Your task to perform on an android device: Find coffee shops on Maps Image 0: 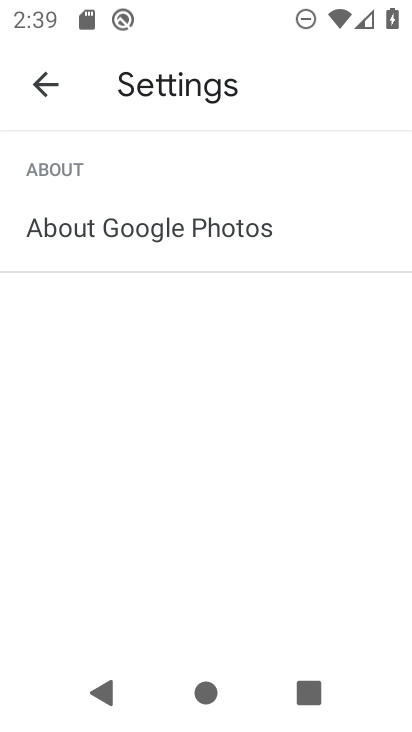
Step 0: press home button
Your task to perform on an android device: Find coffee shops on Maps Image 1: 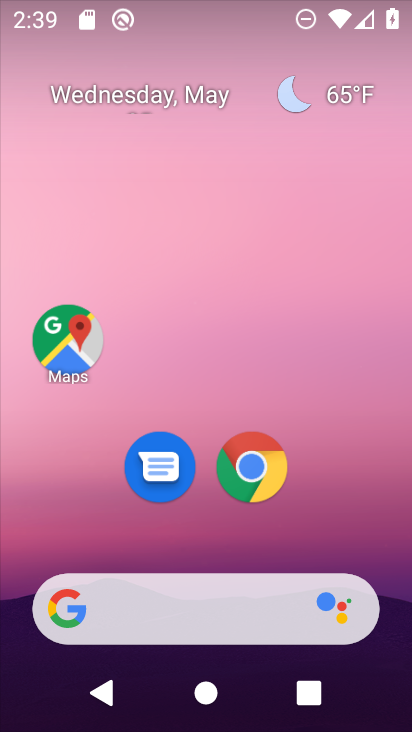
Step 1: click (60, 331)
Your task to perform on an android device: Find coffee shops on Maps Image 2: 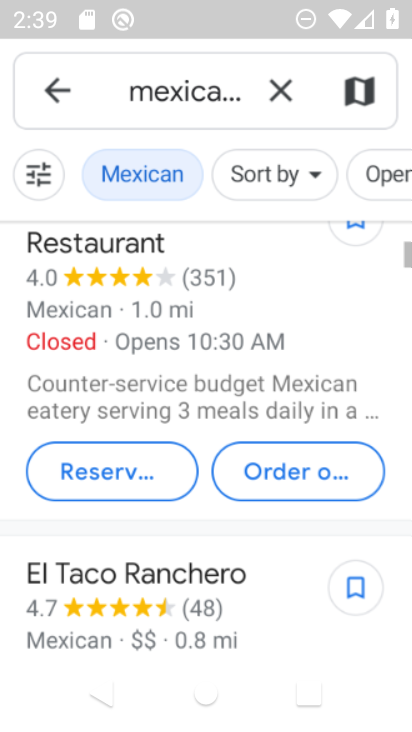
Step 2: click (279, 87)
Your task to perform on an android device: Find coffee shops on Maps Image 3: 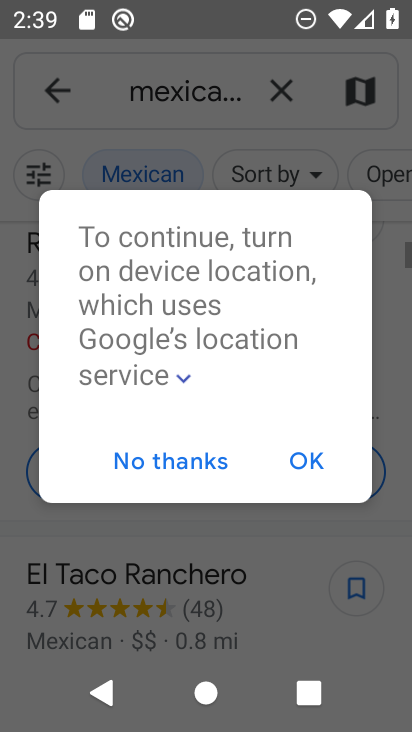
Step 3: click (298, 458)
Your task to perform on an android device: Find coffee shops on Maps Image 4: 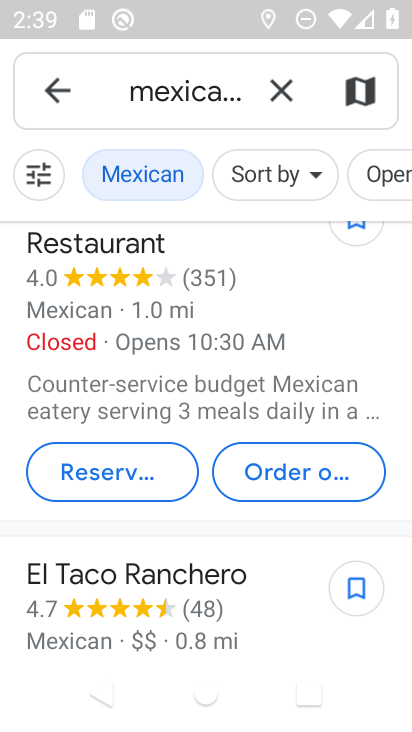
Step 4: click (287, 81)
Your task to perform on an android device: Find coffee shops on Maps Image 5: 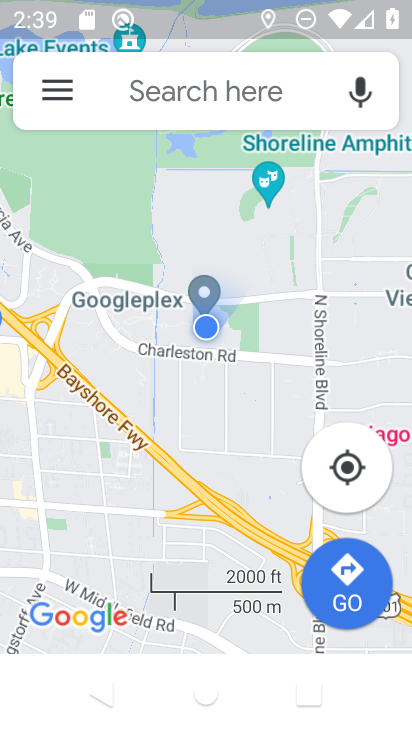
Step 5: click (200, 82)
Your task to perform on an android device: Find coffee shops on Maps Image 6: 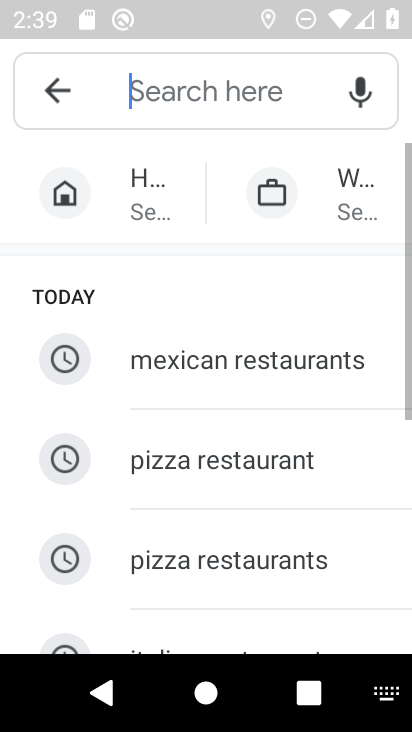
Step 6: drag from (247, 579) to (248, 330)
Your task to perform on an android device: Find coffee shops on Maps Image 7: 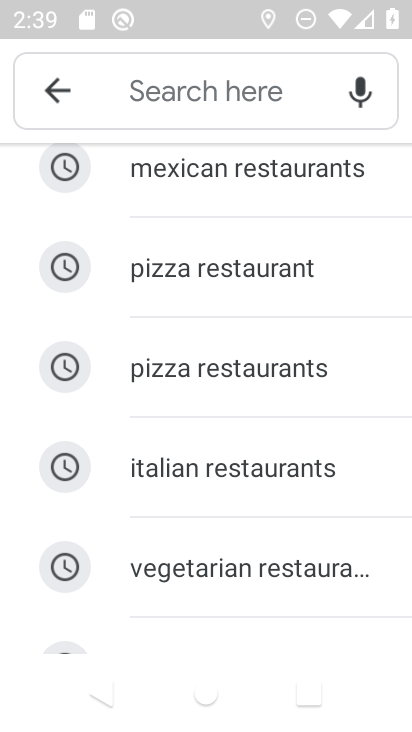
Step 7: drag from (238, 573) to (249, 244)
Your task to perform on an android device: Find coffee shops on Maps Image 8: 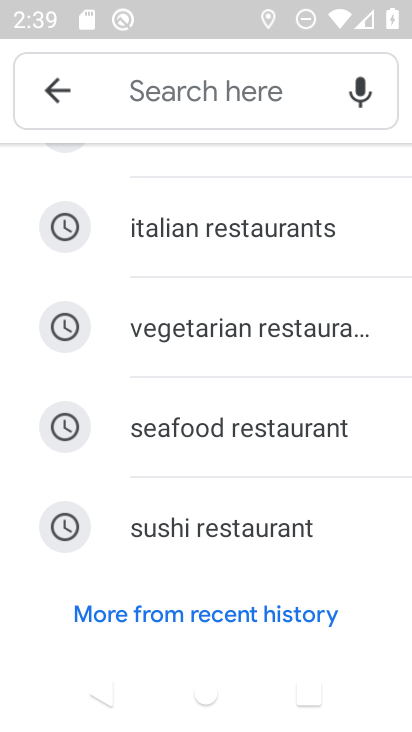
Step 8: click (175, 97)
Your task to perform on an android device: Find coffee shops on Maps Image 9: 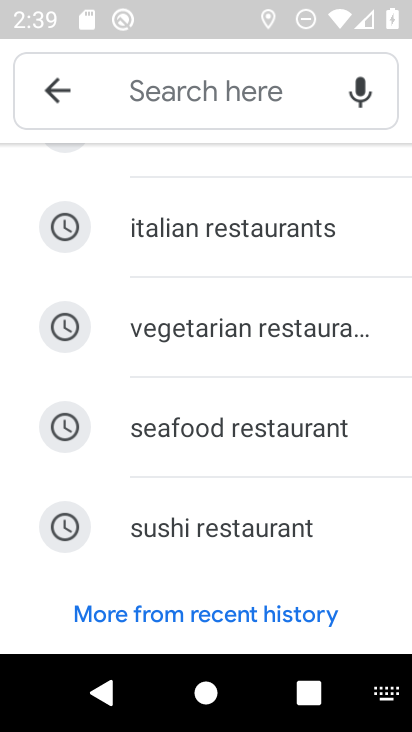
Step 9: type "coffee shops "
Your task to perform on an android device: Find coffee shops on Maps Image 10: 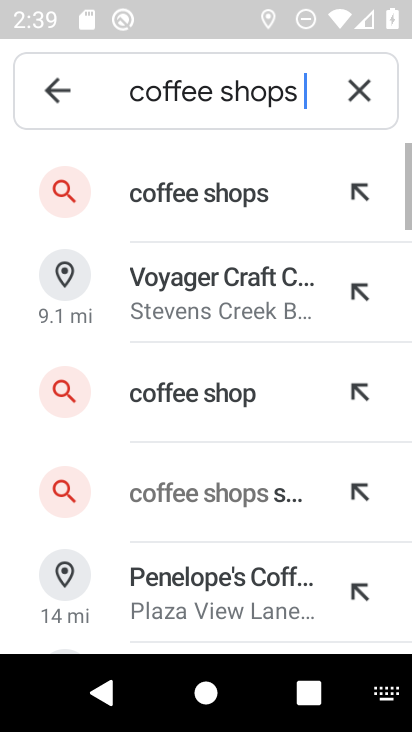
Step 10: click (215, 202)
Your task to perform on an android device: Find coffee shops on Maps Image 11: 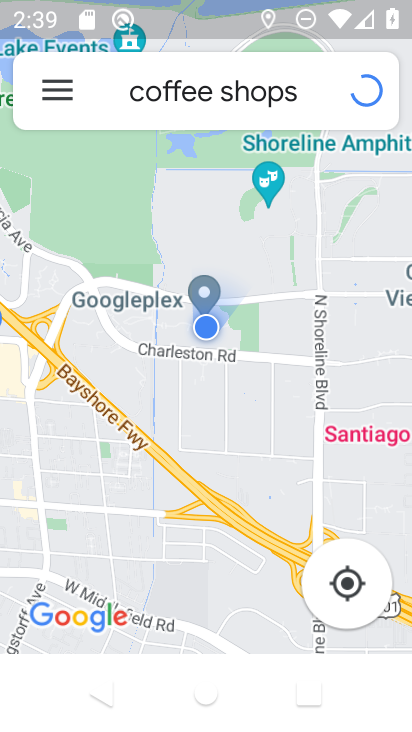
Step 11: task complete